Your task to perform on an android device: When is my next meeting? Image 0: 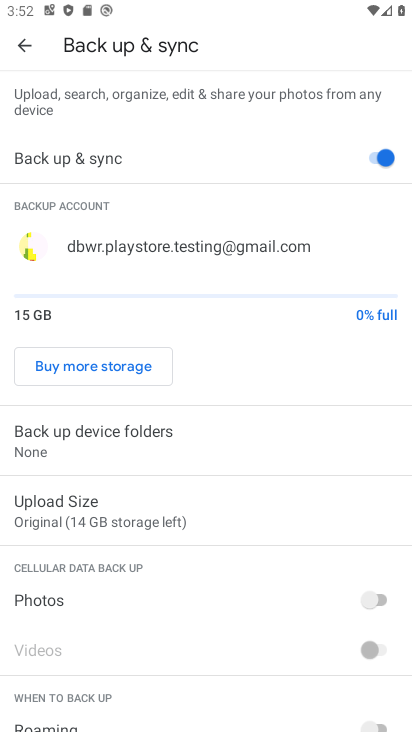
Step 0: press home button
Your task to perform on an android device: When is my next meeting? Image 1: 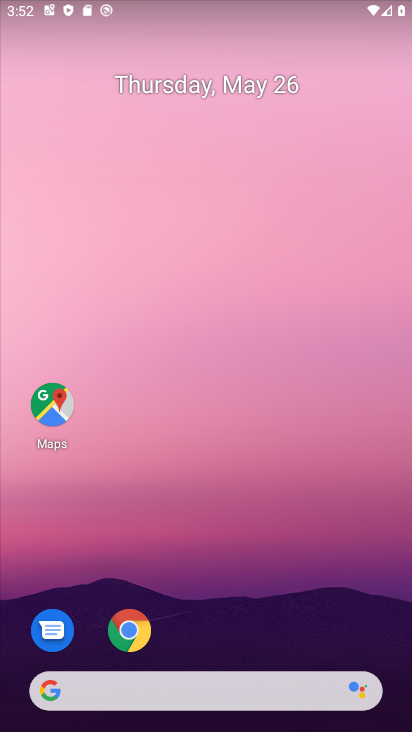
Step 1: drag from (240, 558) to (286, 95)
Your task to perform on an android device: When is my next meeting? Image 2: 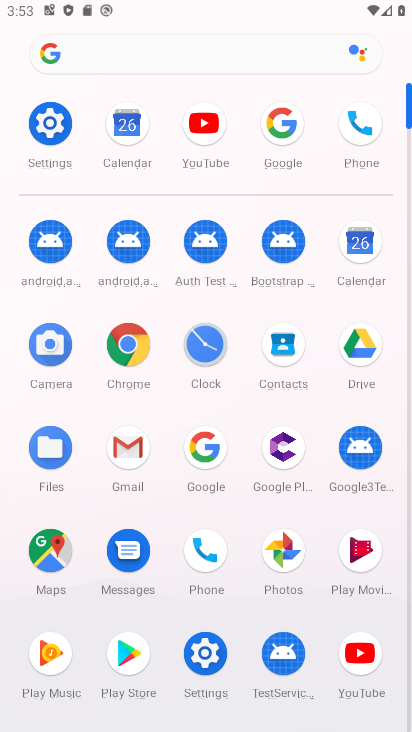
Step 2: click (125, 122)
Your task to perform on an android device: When is my next meeting? Image 3: 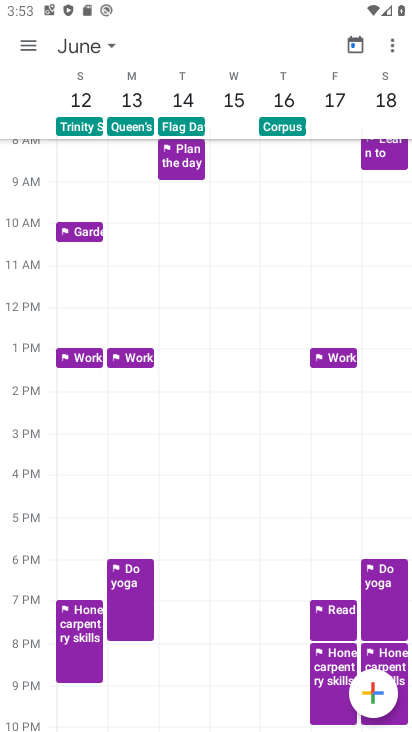
Step 3: click (358, 40)
Your task to perform on an android device: When is my next meeting? Image 4: 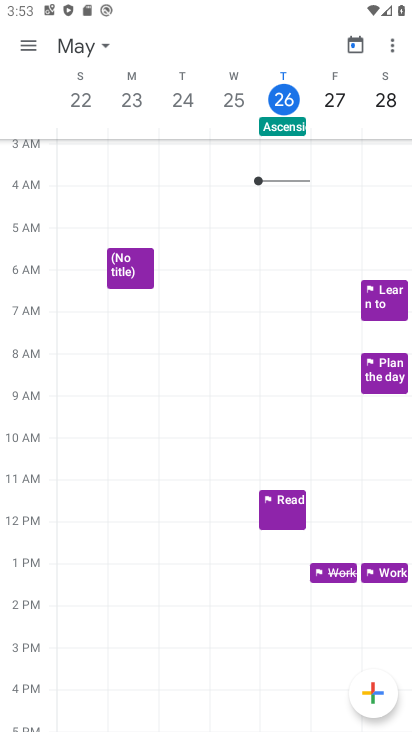
Step 4: click (103, 43)
Your task to perform on an android device: When is my next meeting? Image 5: 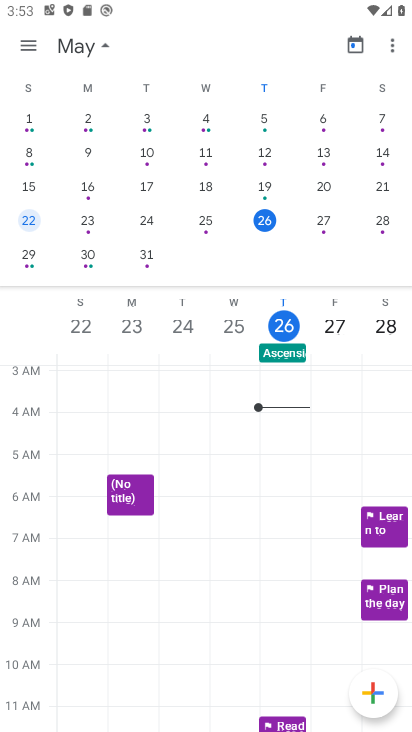
Step 5: click (331, 218)
Your task to perform on an android device: When is my next meeting? Image 6: 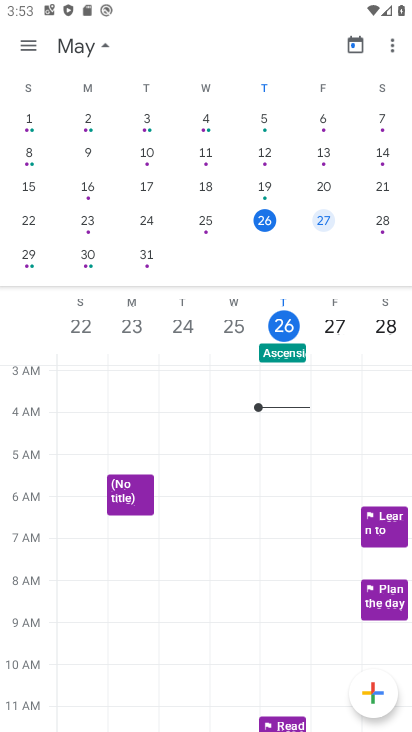
Step 6: click (25, 41)
Your task to perform on an android device: When is my next meeting? Image 7: 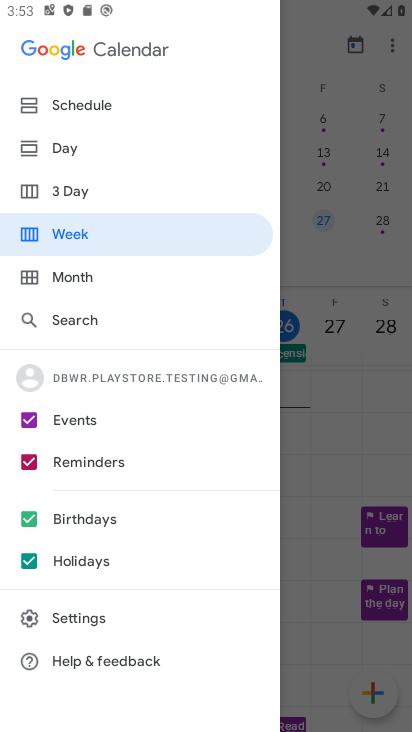
Step 7: click (71, 100)
Your task to perform on an android device: When is my next meeting? Image 8: 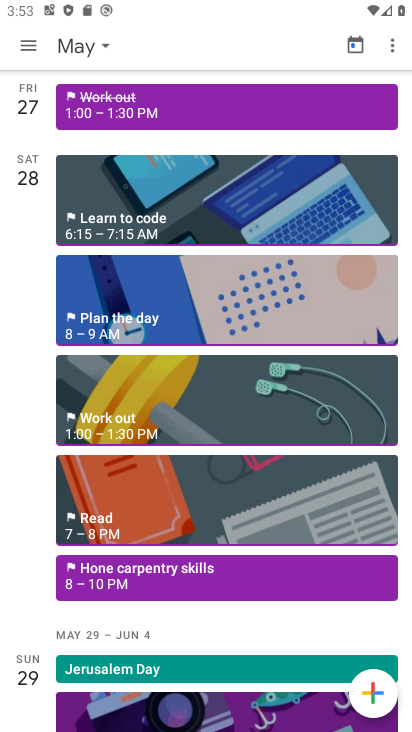
Step 8: task complete